Your task to perform on an android device: turn off location history Image 0: 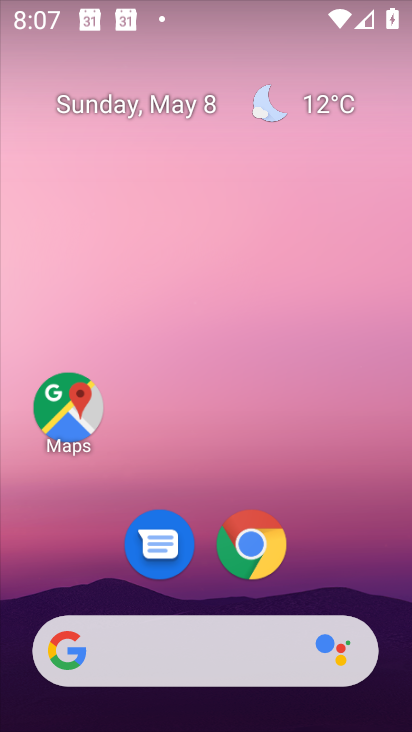
Step 0: drag from (358, 535) to (291, 83)
Your task to perform on an android device: turn off location history Image 1: 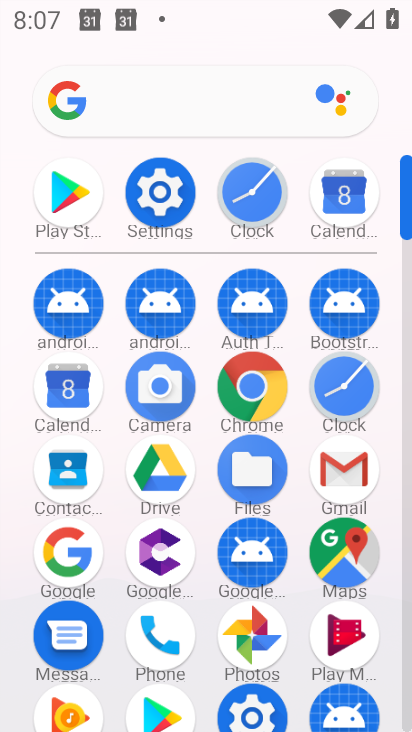
Step 1: click (147, 205)
Your task to perform on an android device: turn off location history Image 2: 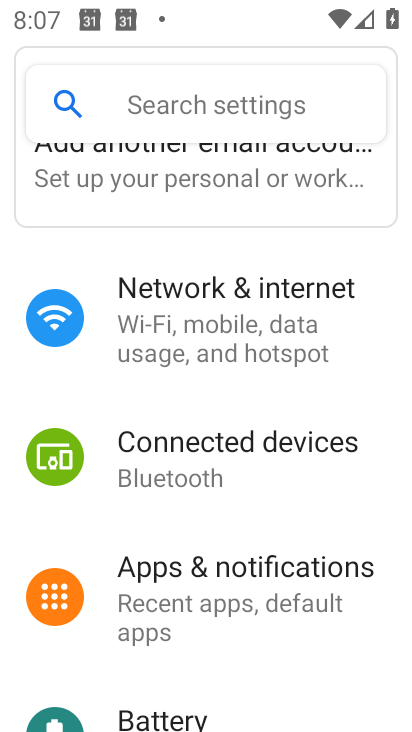
Step 2: drag from (233, 630) to (219, 387)
Your task to perform on an android device: turn off location history Image 3: 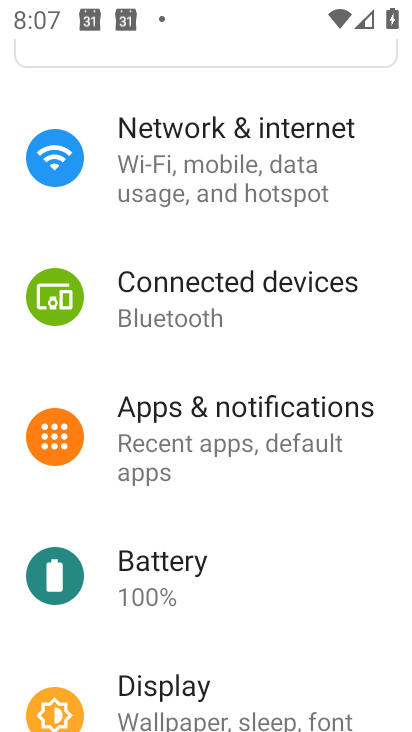
Step 3: drag from (240, 603) to (231, 298)
Your task to perform on an android device: turn off location history Image 4: 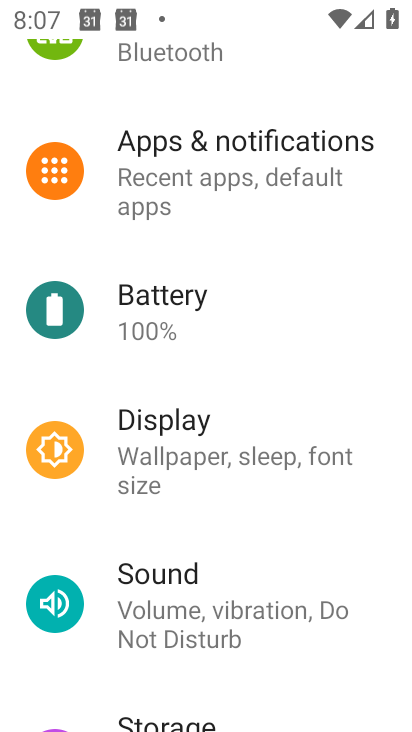
Step 4: drag from (180, 647) to (157, 329)
Your task to perform on an android device: turn off location history Image 5: 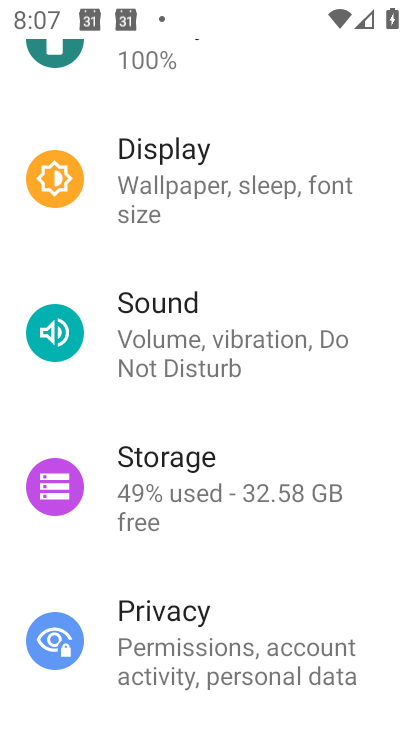
Step 5: drag from (184, 584) to (146, 248)
Your task to perform on an android device: turn off location history Image 6: 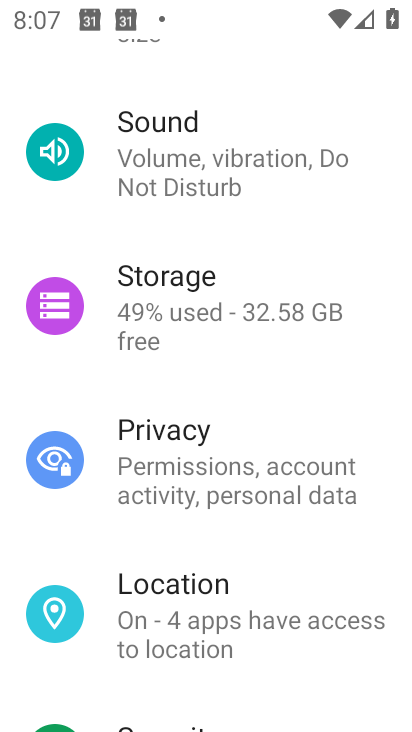
Step 6: click (154, 592)
Your task to perform on an android device: turn off location history Image 7: 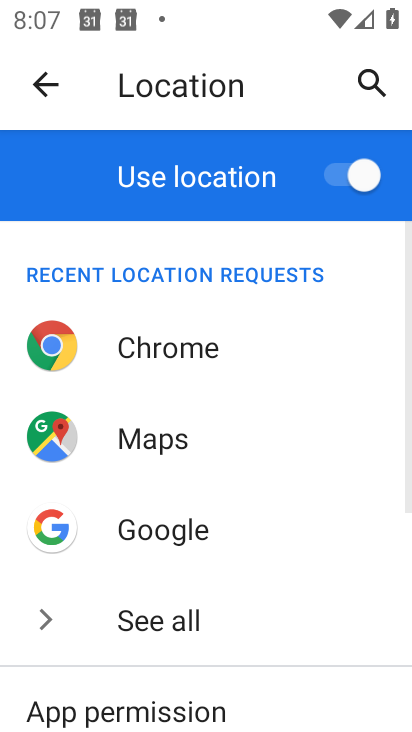
Step 7: drag from (276, 560) to (234, 267)
Your task to perform on an android device: turn off location history Image 8: 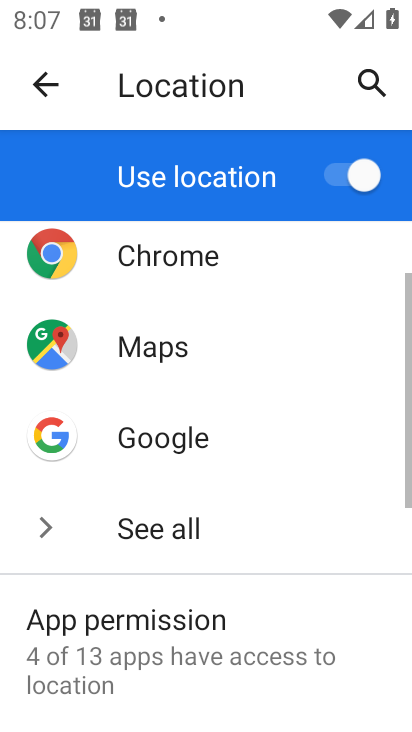
Step 8: drag from (248, 587) to (203, 369)
Your task to perform on an android device: turn off location history Image 9: 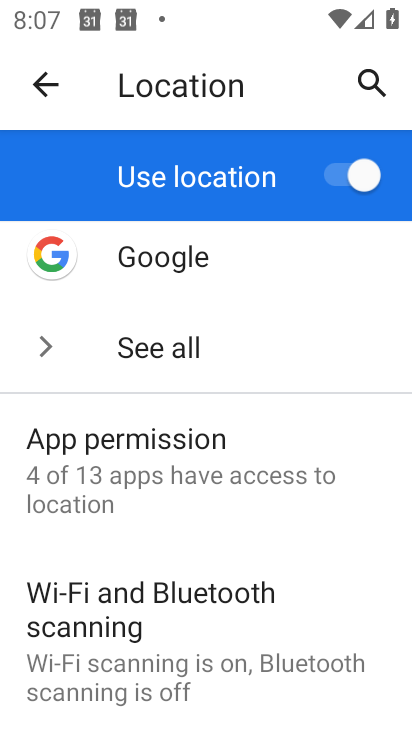
Step 9: drag from (200, 613) to (178, 298)
Your task to perform on an android device: turn off location history Image 10: 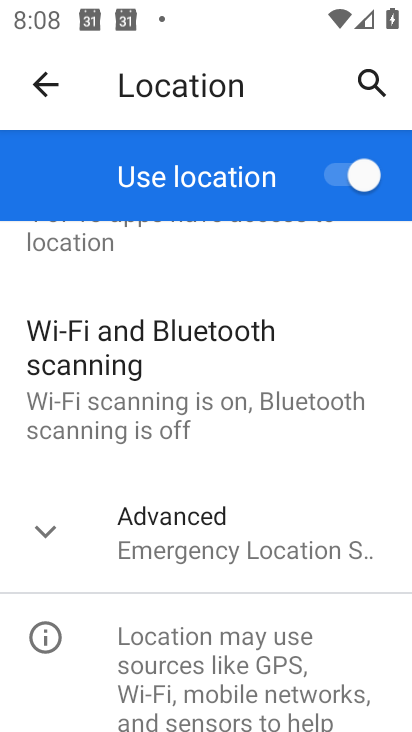
Step 10: drag from (148, 661) to (113, 406)
Your task to perform on an android device: turn off location history Image 11: 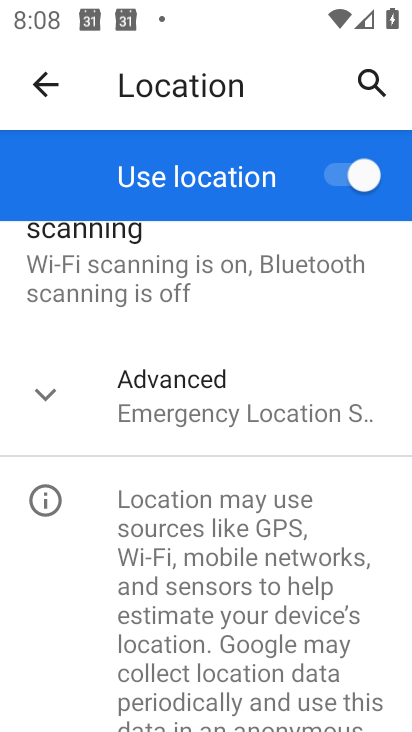
Step 11: click (39, 398)
Your task to perform on an android device: turn off location history Image 12: 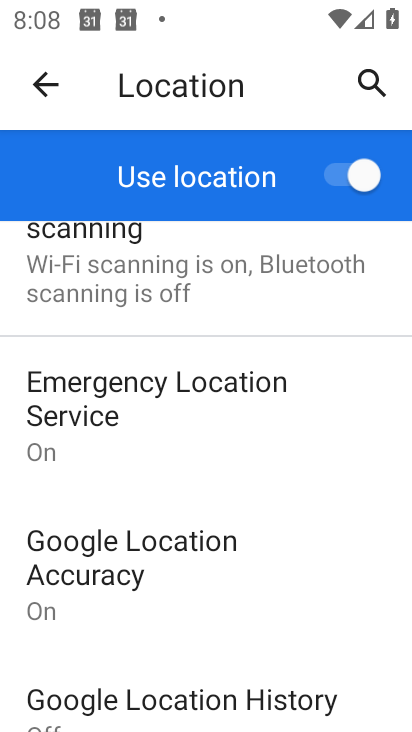
Step 12: drag from (218, 592) to (192, 366)
Your task to perform on an android device: turn off location history Image 13: 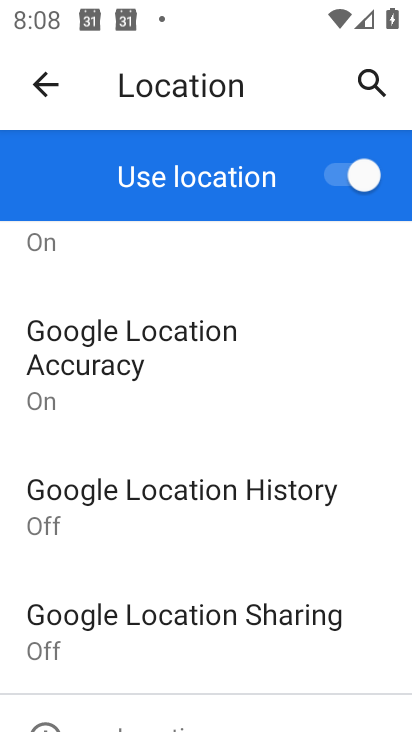
Step 13: click (169, 491)
Your task to perform on an android device: turn off location history Image 14: 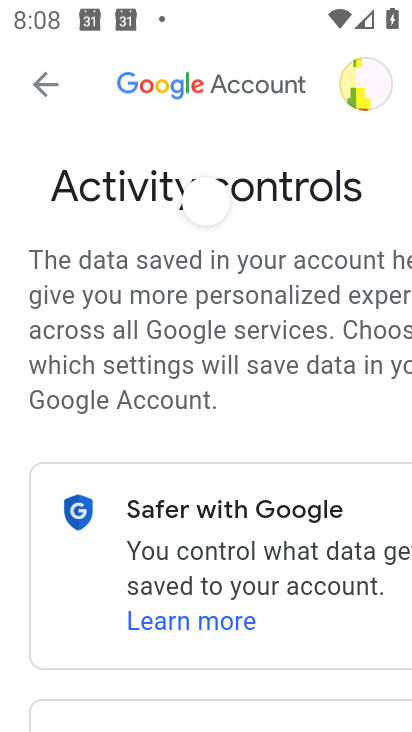
Step 14: drag from (289, 603) to (208, 213)
Your task to perform on an android device: turn off location history Image 15: 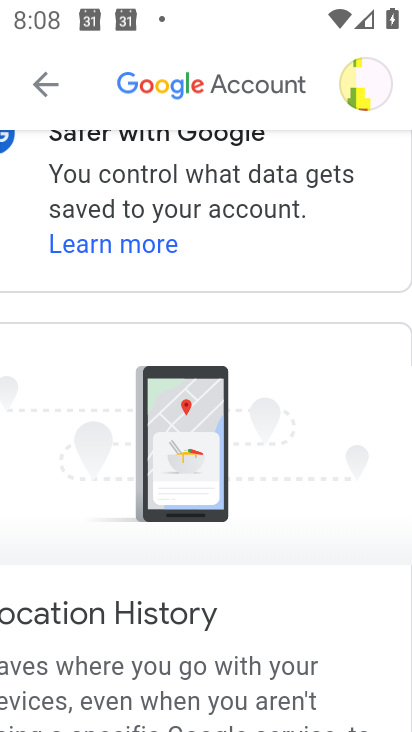
Step 15: drag from (253, 565) to (251, 304)
Your task to perform on an android device: turn off location history Image 16: 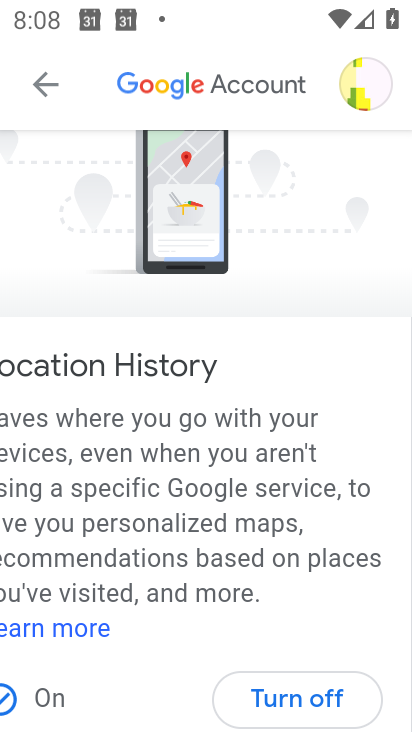
Step 16: drag from (331, 509) to (244, 183)
Your task to perform on an android device: turn off location history Image 17: 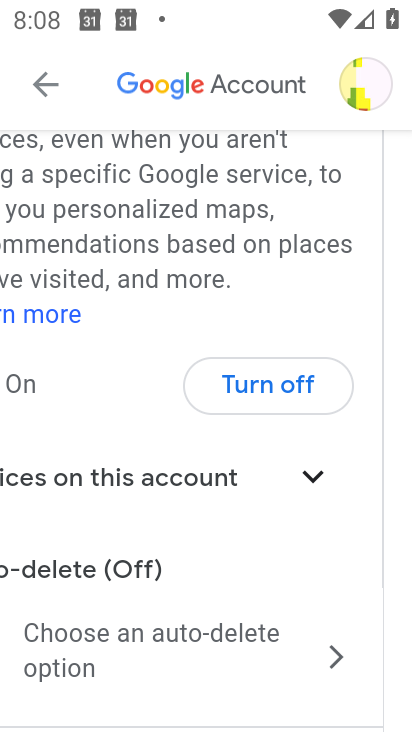
Step 17: click (281, 392)
Your task to perform on an android device: turn off location history Image 18: 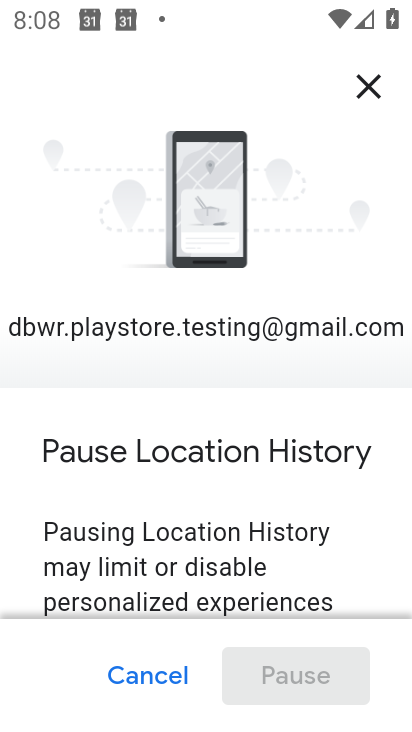
Step 18: drag from (300, 486) to (295, 247)
Your task to perform on an android device: turn off location history Image 19: 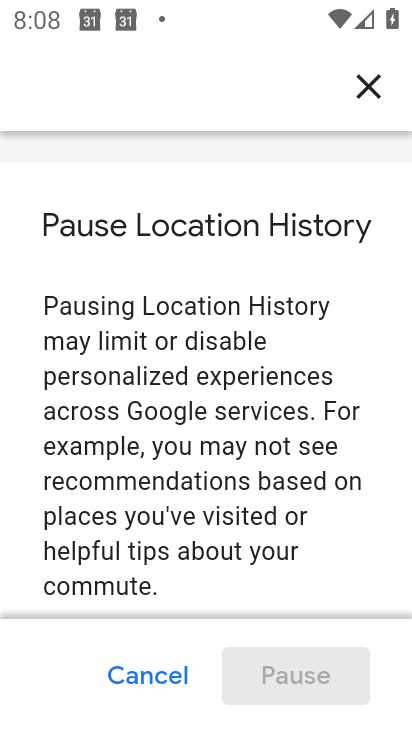
Step 19: drag from (306, 523) to (301, 318)
Your task to perform on an android device: turn off location history Image 20: 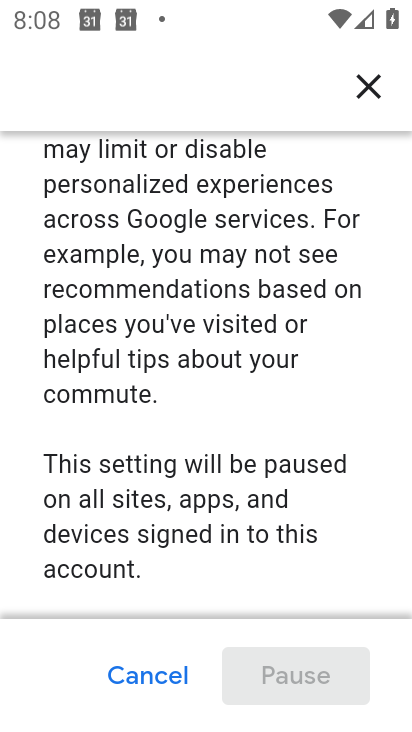
Step 20: drag from (293, 447) to (295, 303)
Your task to perform on an android device: turn off location history Image 21: 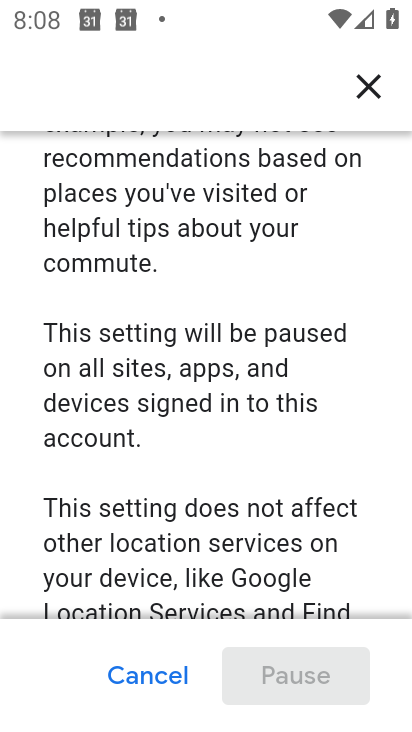
Step 21: drag from (301, 466) to (292, 218)
Your task to perform on an android device: turn off location history Image 22: 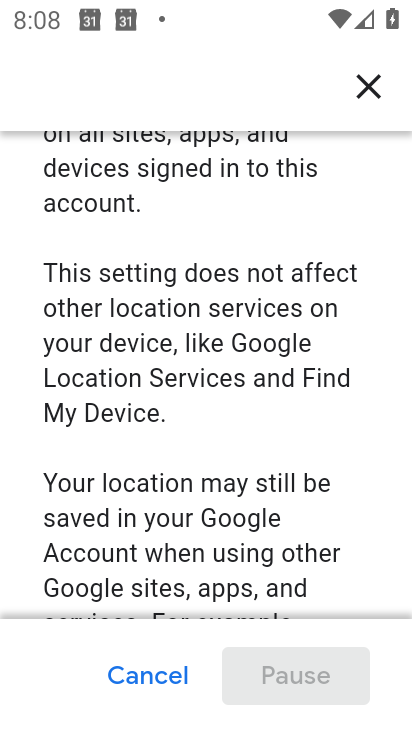
Step 22: drag from (303, 471) to (280, 214)
Your task to perform on an android device: turn off location history Image 23: 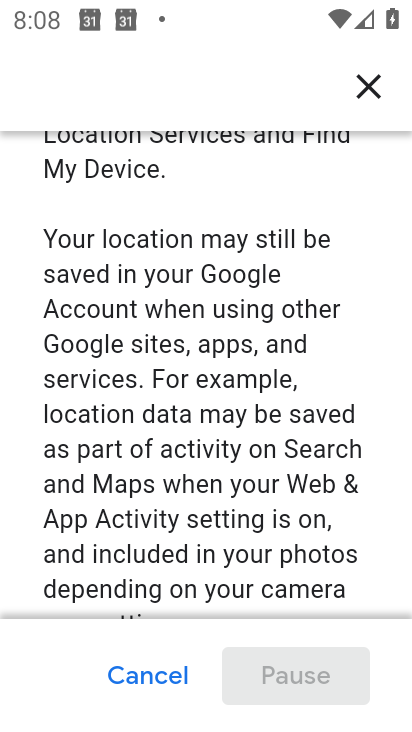
Step 23: drag from (326, 445) to (319, 224)
Your task to perform on an android device: turn off location history Image 24: 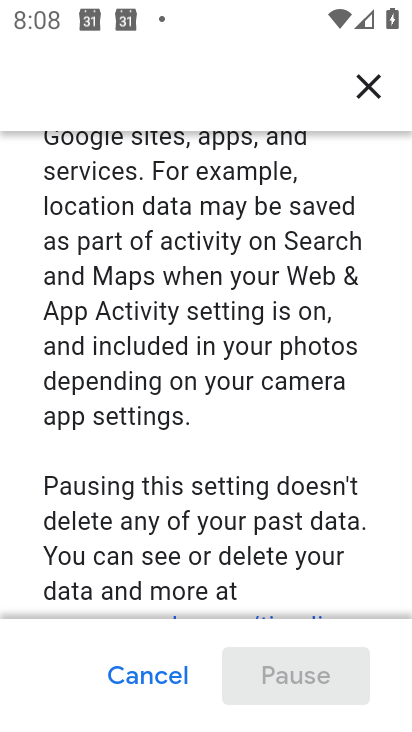
Step 24: drag from (282, 563) to (241, 220)
Your task to perform on an android device: turn off location history Image 25: 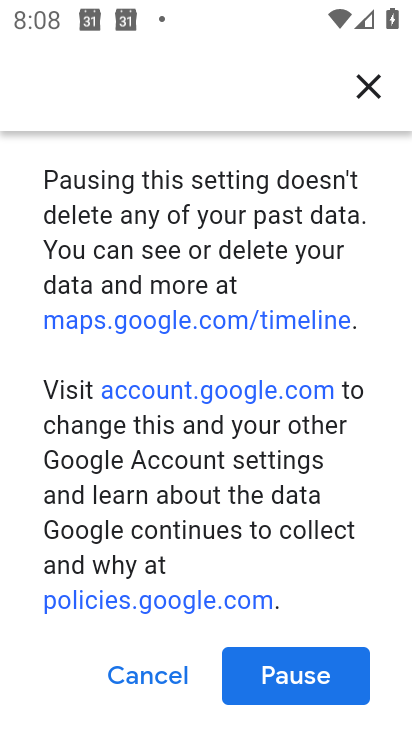
Step 25: click (301, 669)
Your task to perform on an android device: turn off location history Image 26: 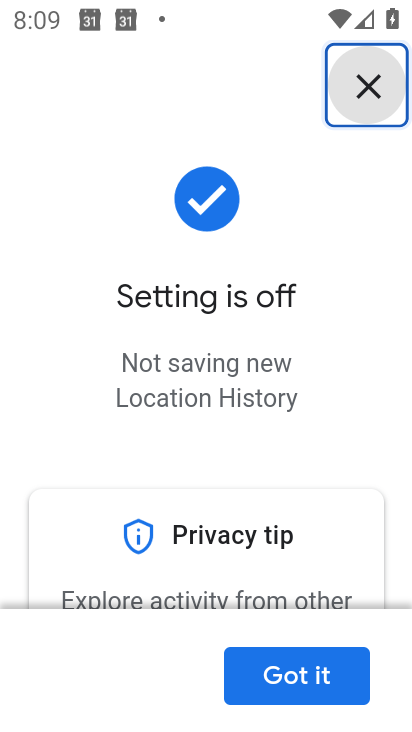
Step 26: click (298, 677)
Your task to perform on an android device: turn off location history Image 27: 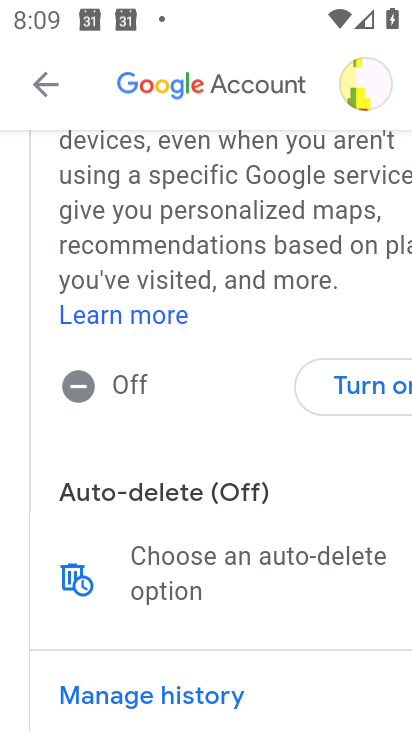
Step 27: task complete